Your task to perform on an android device: set the timer Image 0: 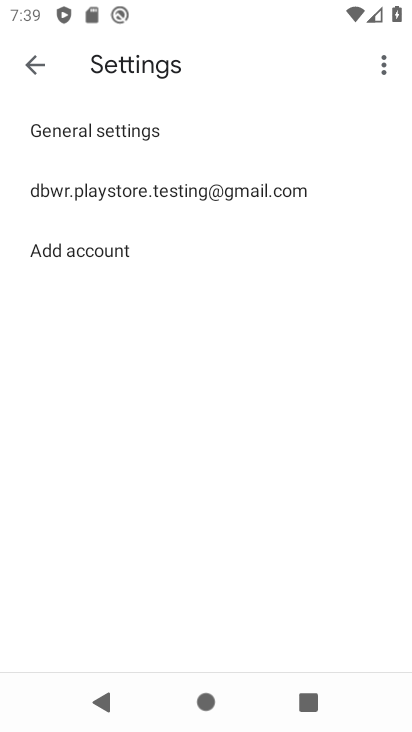
Step 0: press home button
Your task to perform on an android device: set the timer Image 1: 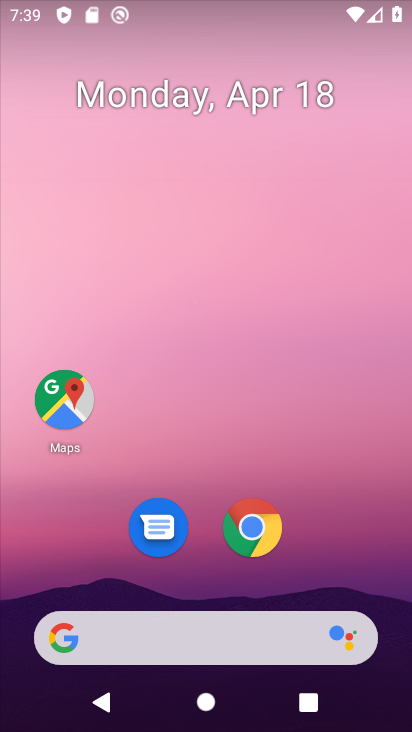
Step 1: drag from (397, 533) to (373, 88)
Your task to perform on an android device: set the timer Image 2: 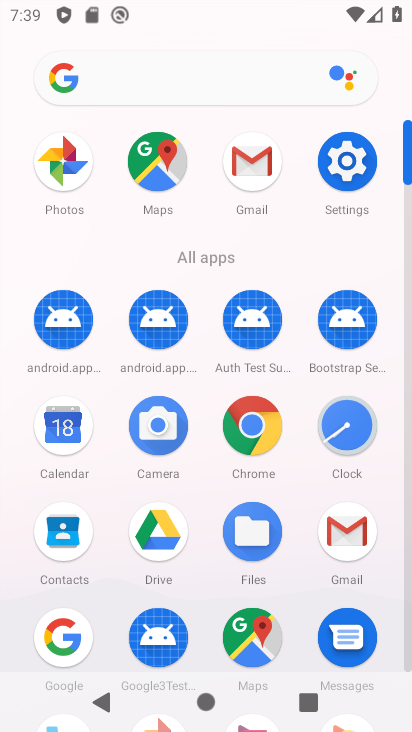
Step 2: click (345, 427)
Your task to perform on an android device: set the timer Image 3: 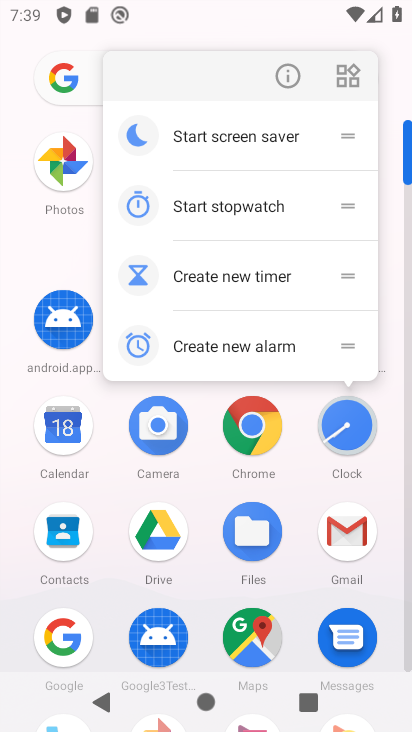
Step 3: click (344, 428)
Your task to perform on an android device: set the timer Image 4: 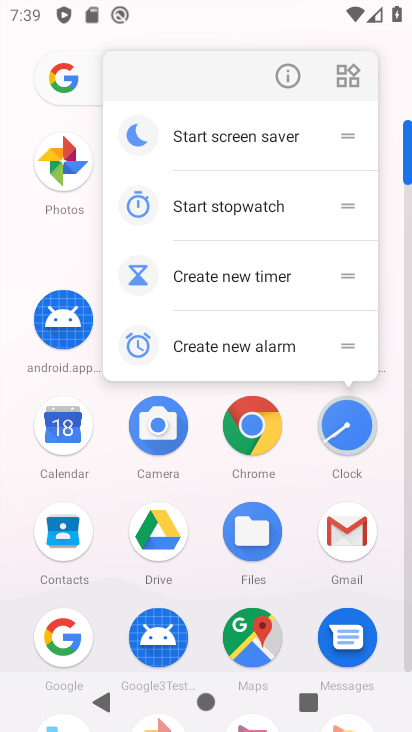
Step 4: click (363, 446)
Your task to perform on an android device: set the timer Image 5: 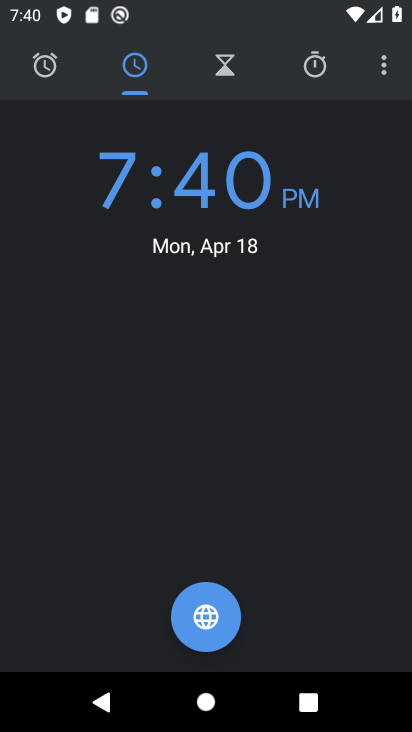
Step 5: click (230, 73)
Your task to perform on an android device: set the timer Image 6: 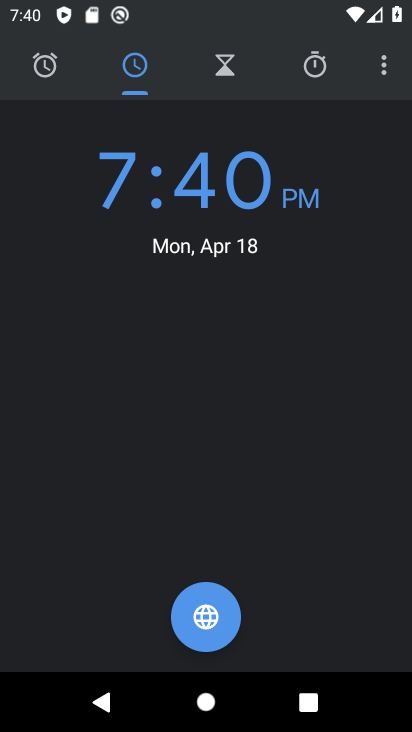
Step 6: click (229, 74)
Your task to perform on an android device: set the timer Image 7: 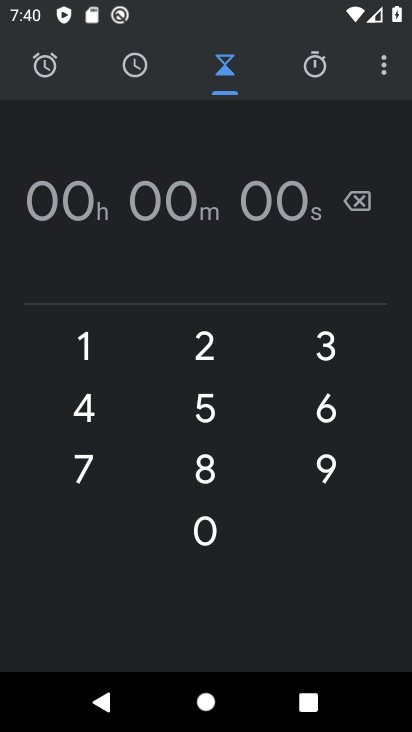
Step 7: click (95, 349)
Your task to perform on an android device: set the timer Image 8: 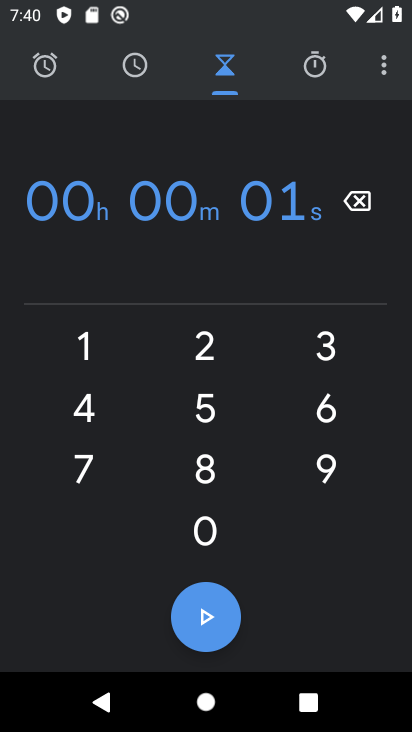
Step 8: click (205, 345)
Your task to perform on an android device: set the timer Image 9: 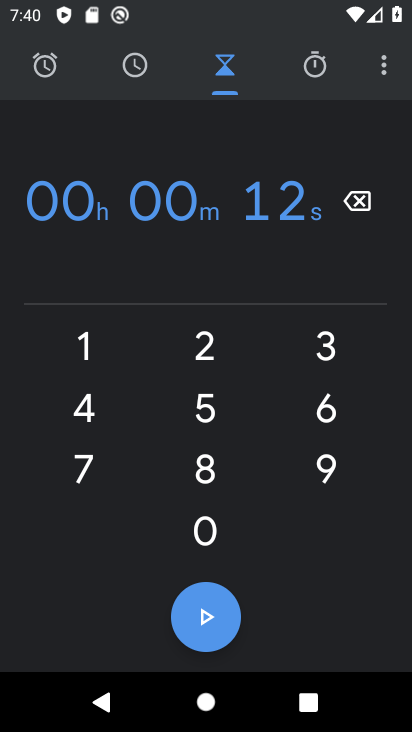
Step 9: click (206, 615)
Your task to perform on an android device: set the timer Image 10: 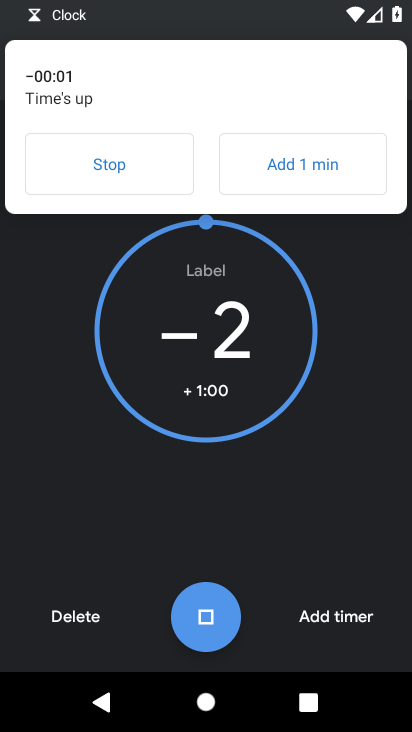
Step 10: click (111, 154)
Your task to perform on an android device: set the timer Image 11: 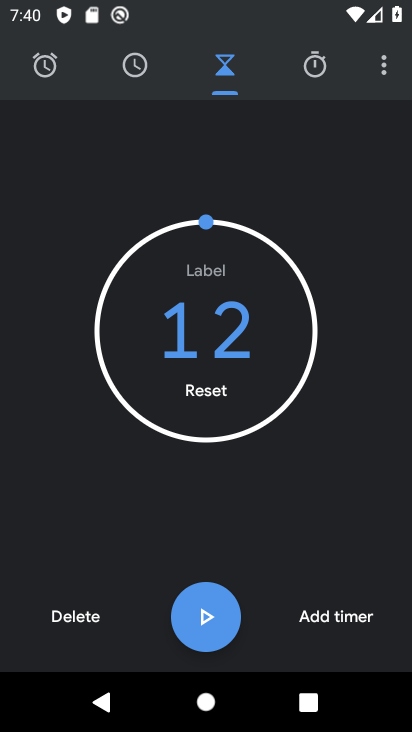
Step 11: task complete